Your task to perform on an android device: install app "Roku - Official Remote Control" Image 0: 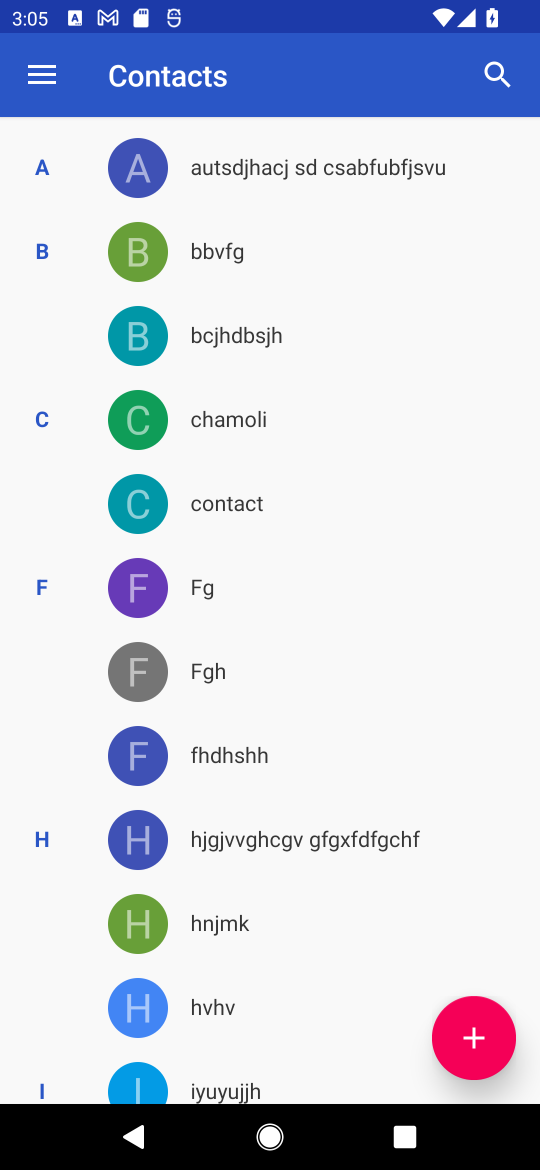
Step 0: press home button
Your task to perform on an android device: install app "Roku - Official Remote Control" Image 1: 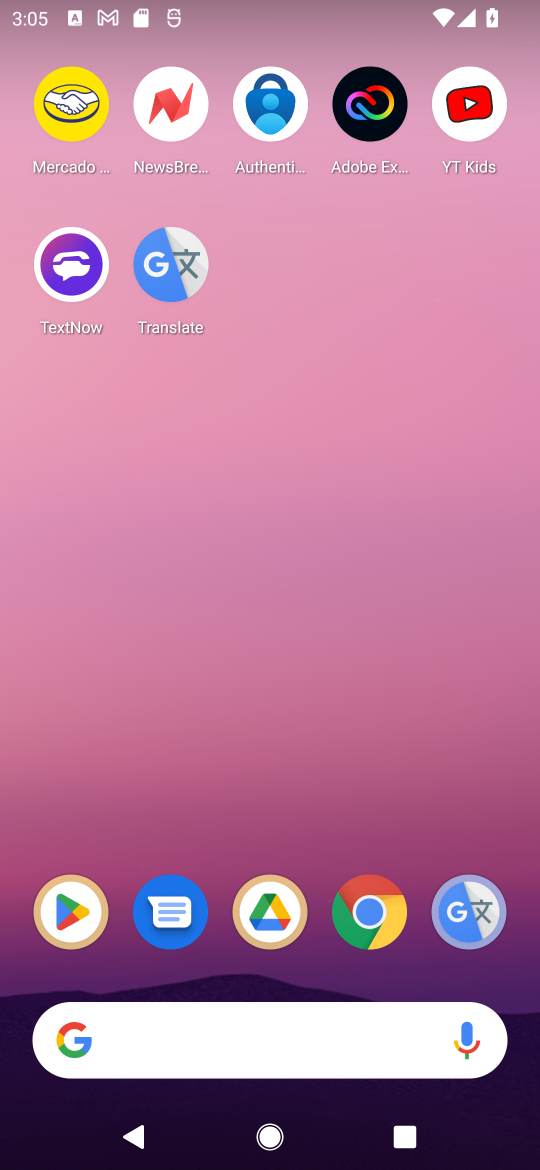
Step 1: click (84, 919)
Your task to perform on an android device: install app "Roku - Official Remote Control" Image 2: 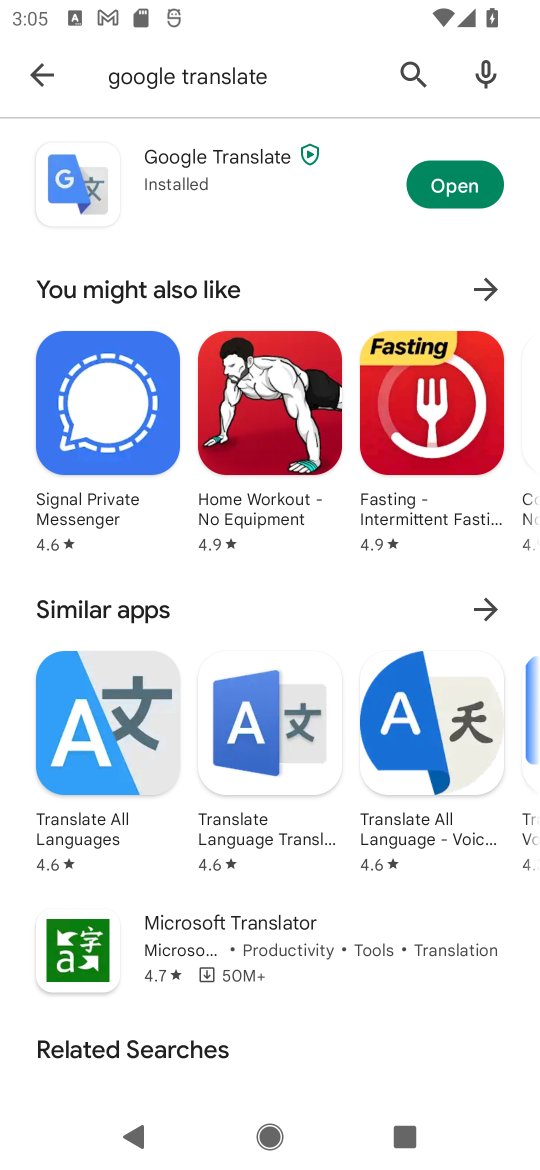
Step 2: click (410, 74)
Your task to perform on an android device: install app "Roku - Official Remote Control" Image 3: 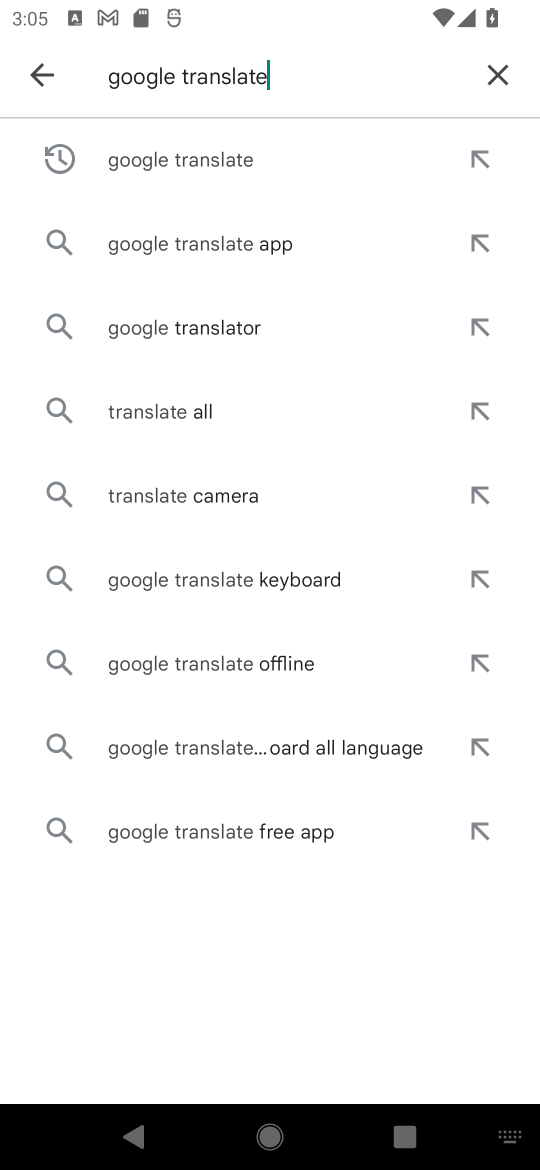
Step 3: click (486, 87)
Your task to perform on an android device: install app "Roku - Official Remote Control" Image 4: 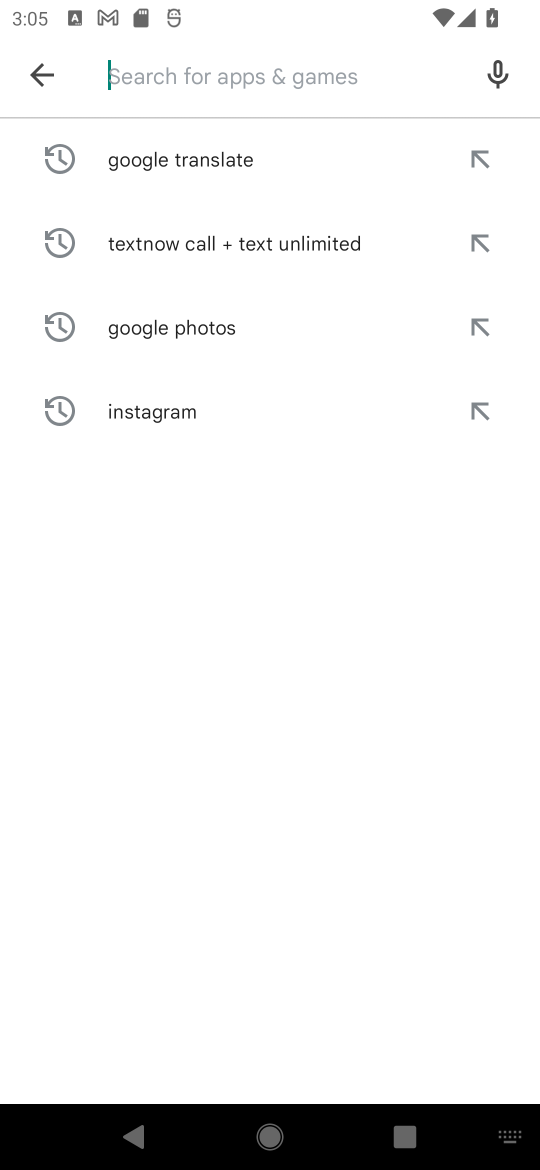
Step 4: type "Roku - Official Remote Control"
Your task to perform on an android device: install app "Roku - Official Remote Control" Image 5: 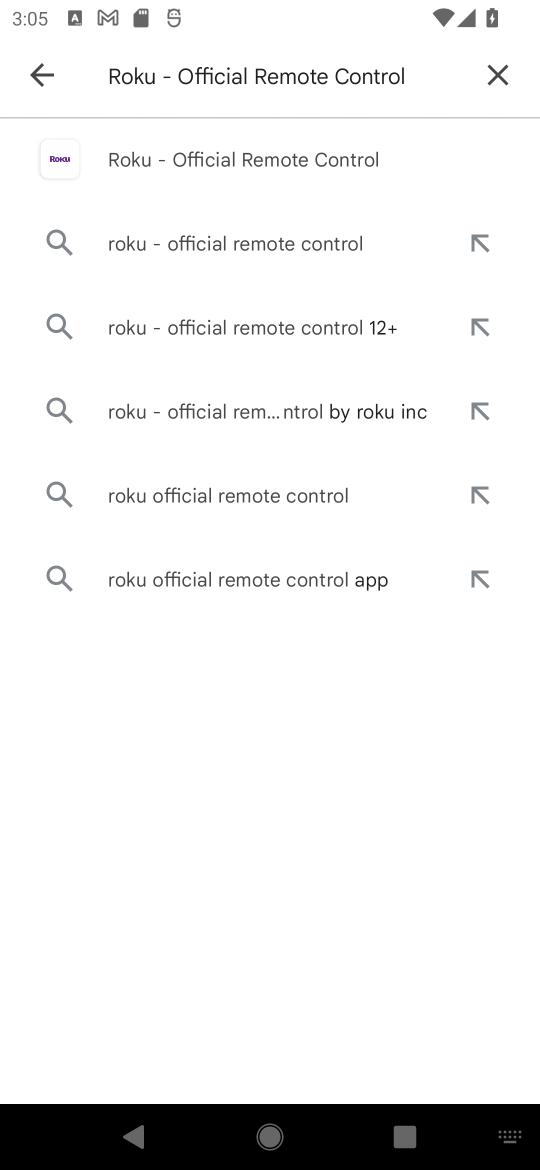
Step 5: click (237, 163)
Your task to perform on an android device: install app "Roku - Official Remote Control" Image 6: 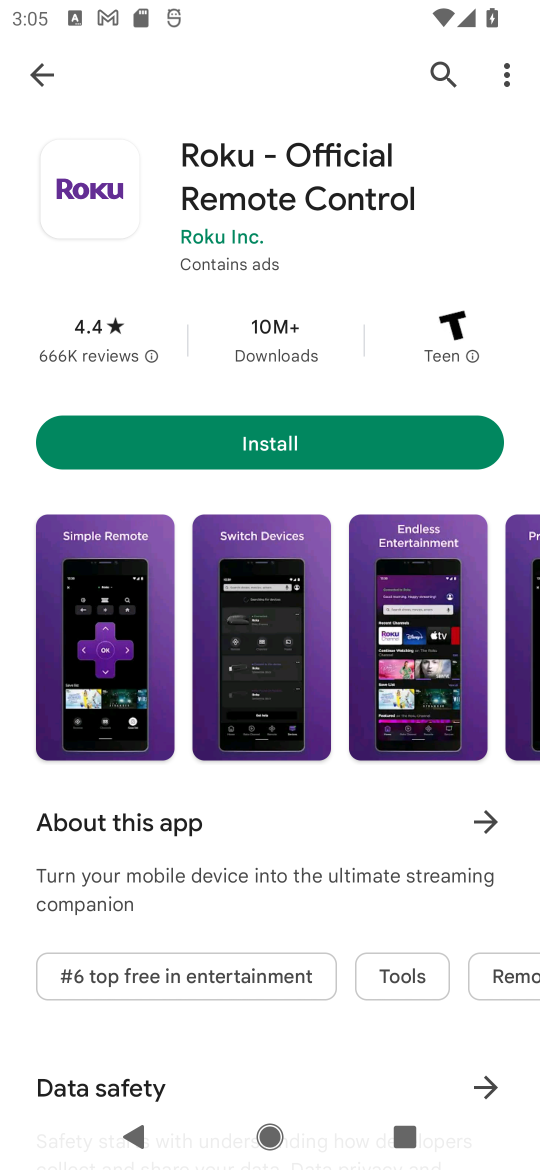
Step 6: click (244, 442)
Your task to perform on an android device: install app "Roku - Official Remote Control" Image 7: 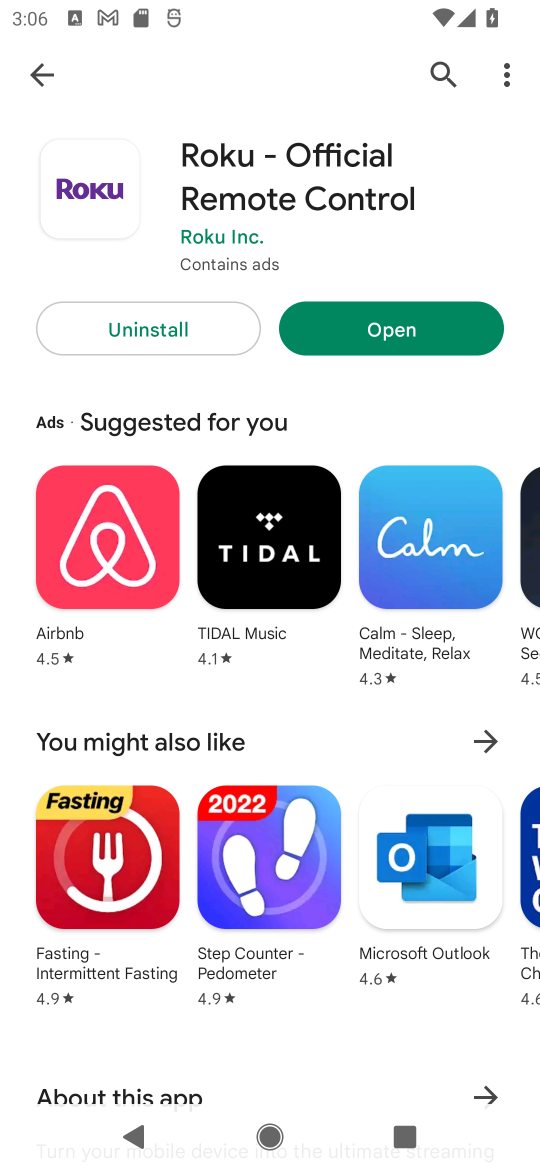
Step 7: task complete